Your task to perform on an android device: Go to Amazon Image 0: 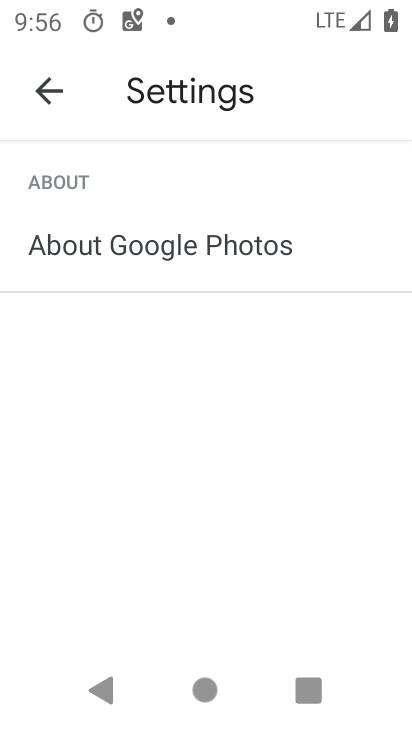
Step 0: press home button
Your task to perform on an android device: Go to Amazon Image 1: 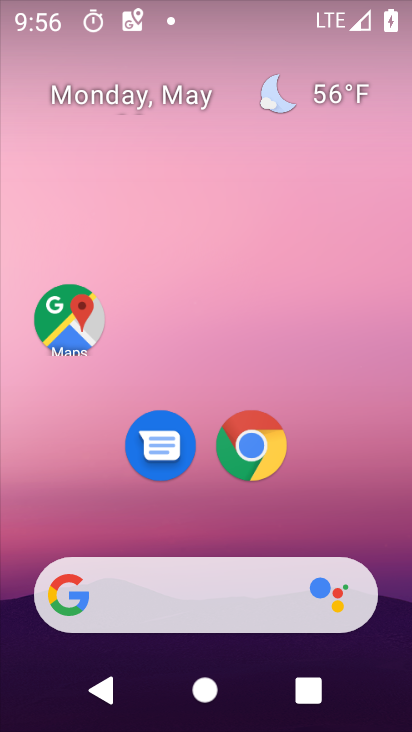
Step 1: click (279, 467)
Your task to perform on an android device: Go to Amazon Image 2: 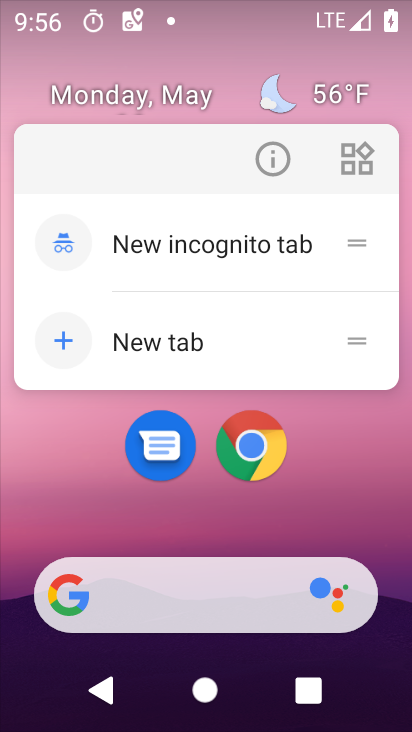
Step 2: click (263, 447)
Your task to perform on an android device: Go to Amazon Image 3: 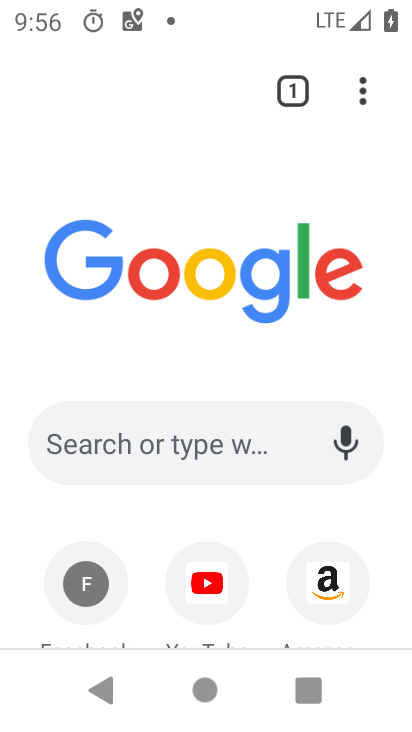
Step 3: click (344, 583)
Your task to perform on an android device: Go to Amazon Image 4: 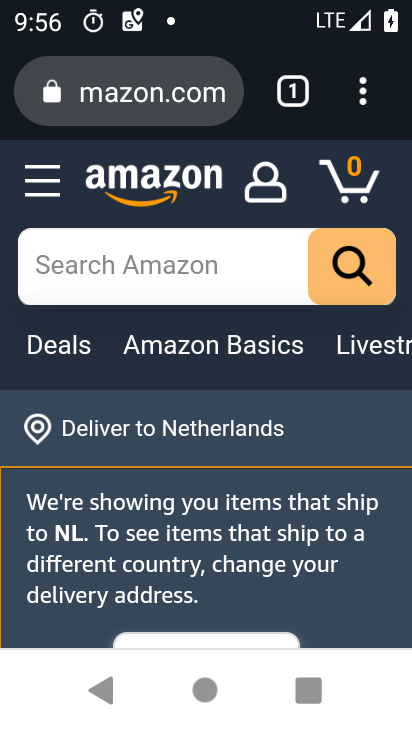
Step 4: task complete